Your task to perform on an android device: choose inbox layout in the gmail app Image 0: 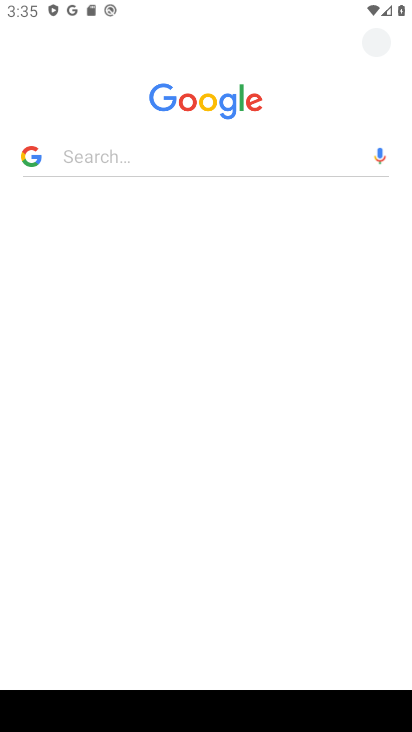
Step 0: press back button
Your task to perform on an android device: choose inbox layout in the gmail app Image 1: 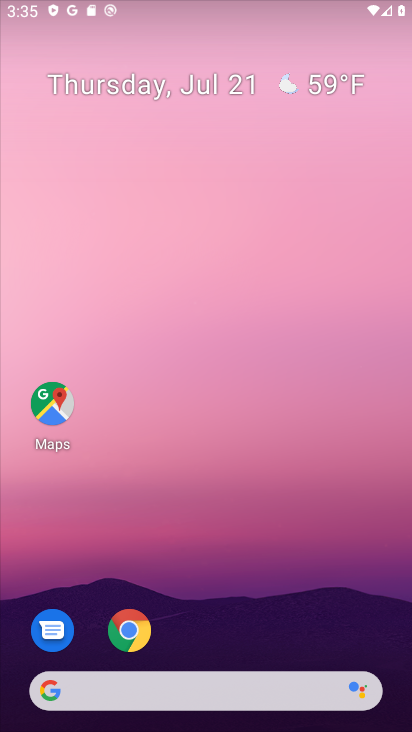
Step 1: drag from (203, 645) to (151, 348)
Your task to perform on an android device: choose inbox layout in the gmail app Image 2: 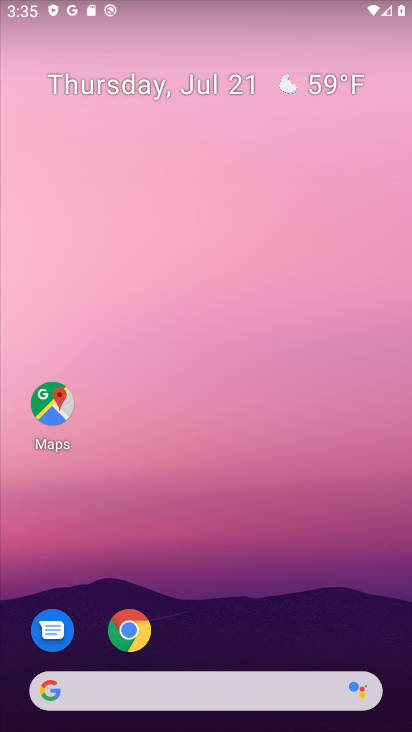
Step 2: drag from (219, 307) to (195, 65)
Your task to perform on an android device: choose inbox layout in the gmail app Image 3: 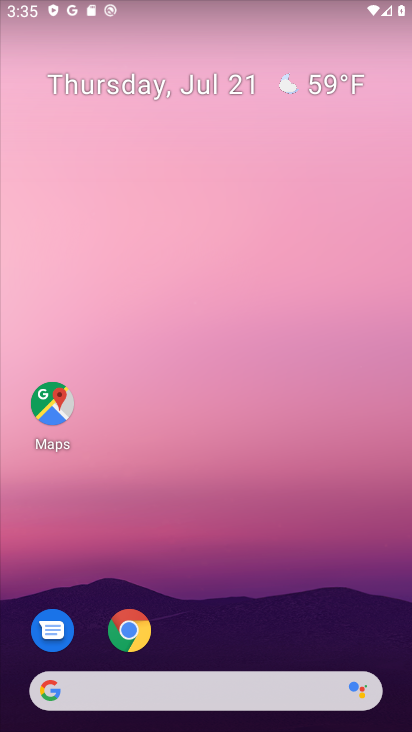
Step 3: drag from (272, 604) to (273, 230)
Your task to perform on an android device: choose inbox layout in the gmail app Image 4: 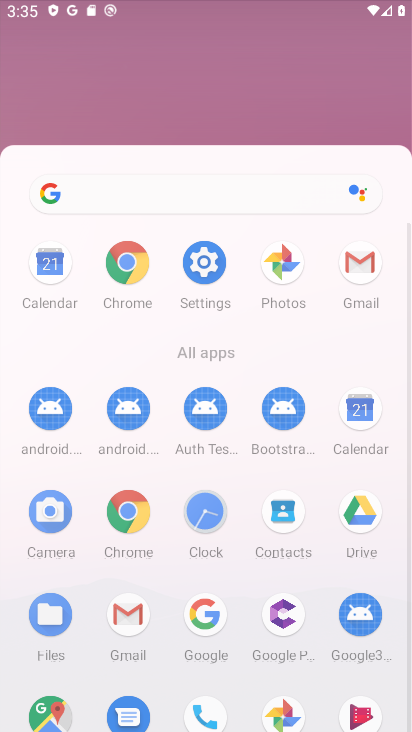
Step 4: drag from (263, 306) to (260, 105)
Your task to perform on an android device: choose inbox layout in the gmail app Image 5: 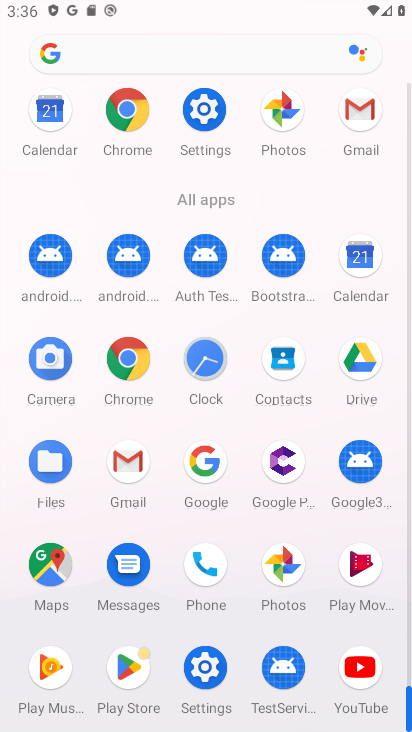
Step 5: click (120, 446)
Your task to perform on an android device: choose inbox layout in the gmail app Image 6: 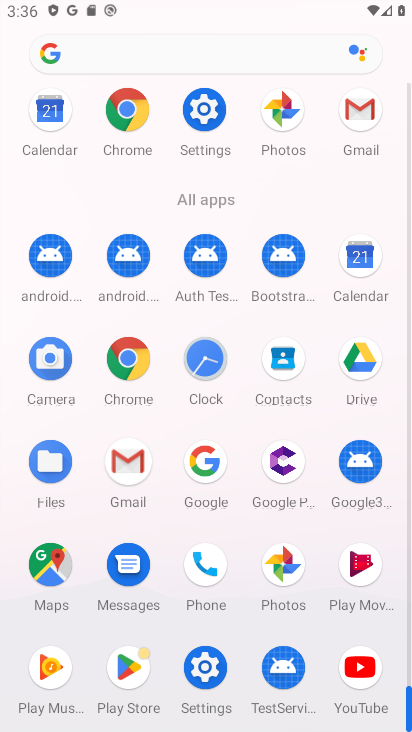
Step 6: click (122, 445)
Your task to perform on an android device: choose inbox layout in the gmail app Image 7: 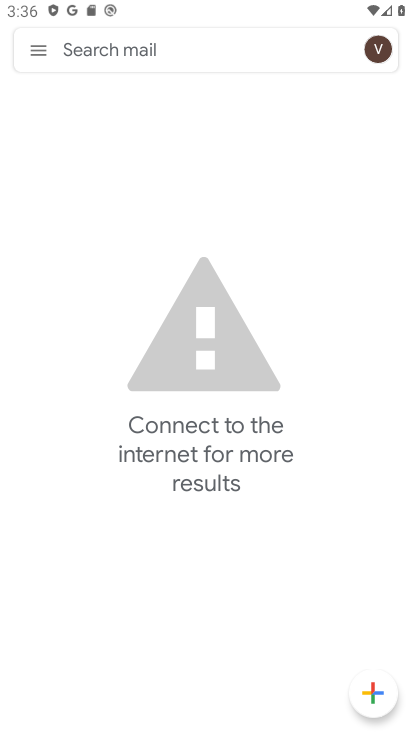
Step 7: click (38, 45)
Your task to perform on an android device: choose inbox layout in the gmail app Image 8: 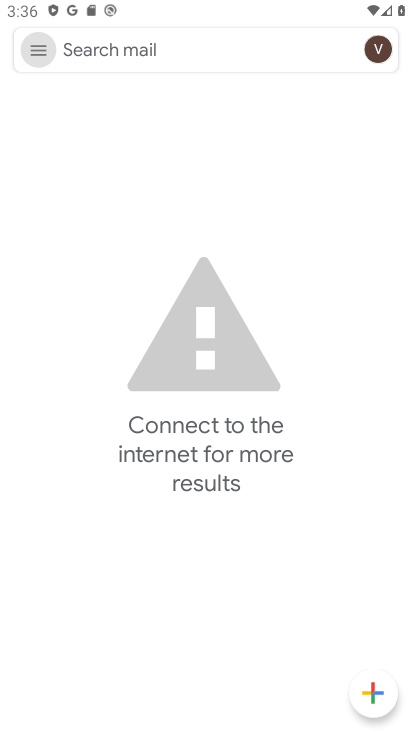
Step 8: drag from (37, 45) to (120, 622)
Your task to perform on an android device: choose inbox layout in the gmail app Image 9: 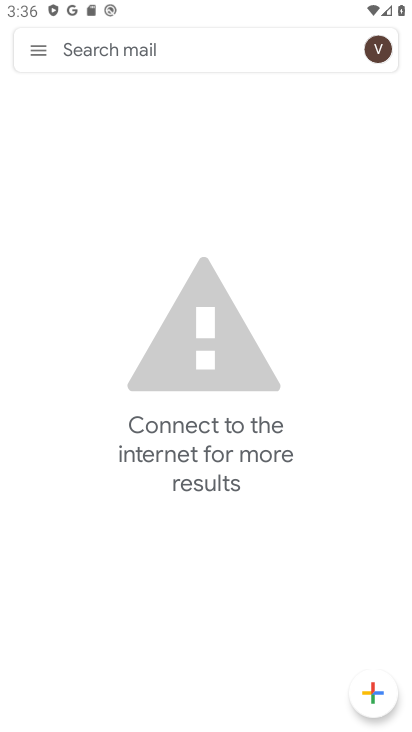
Step 9: click (40, 54)
Your task to perform on an android device: choose inbox layout in the gmail app Image 10: 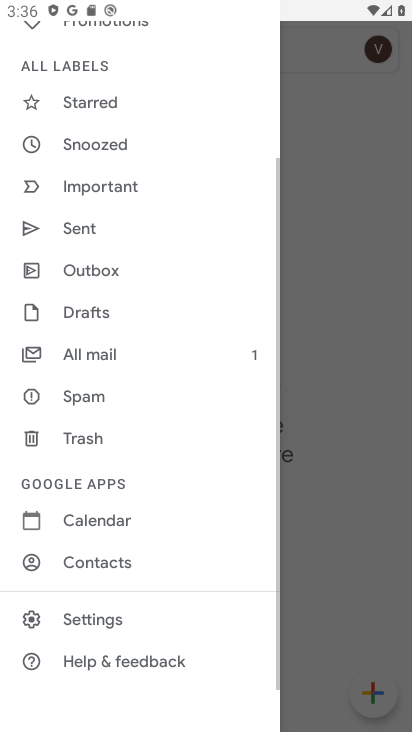
Step 10: click (69, 617)
Your task to perform on an android device: choose inbox layout in the gmail app Image 11: 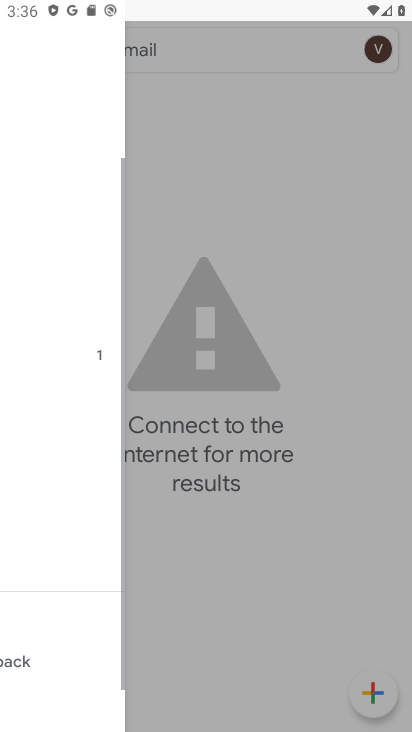
Step 11: click (69, 617)
Your task to perform on an android device: choose inbox layout in the gmail app Image 12: 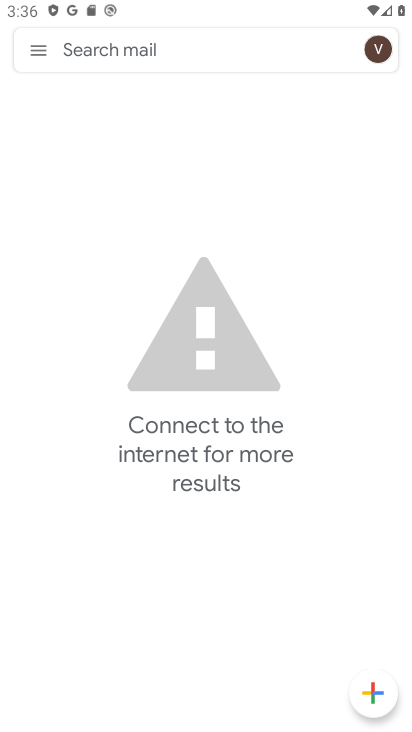
Step 12: click (73, 612)
Your task to perform on an android device: choose inbox layout in the gmail app Image 13: 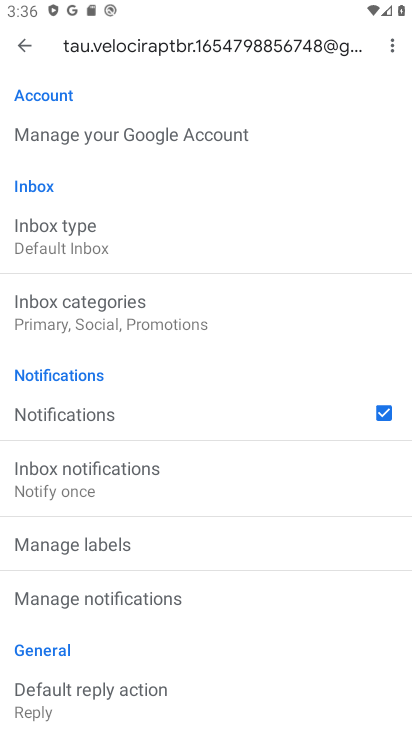
Step 13: press back button
Your task to perform on an android device: choose inbox layout in the gmail app Image 14: 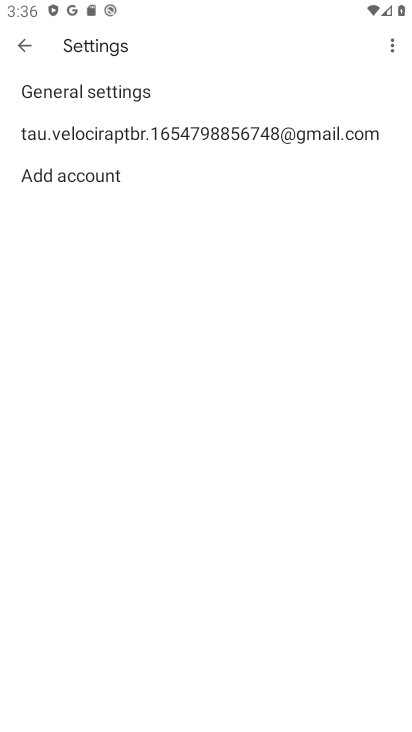
Step 14: click (18, 45)
Your task to perform on an android device: choose inbox layout in the gmail app Image 15: 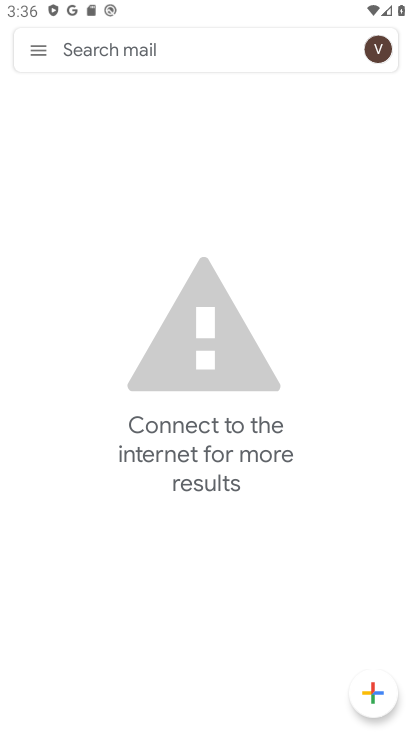
Step 15: click (32, 46)
Your task to perform on an android device: choose inbox layout in the gmail app Image 16: 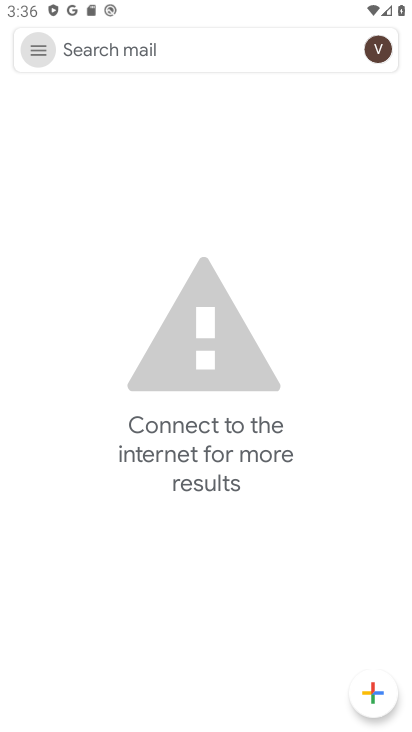
Step 16: click (33, 46)
Your task to perform on an android device: choose inbox layout in the gmail app Image 17: 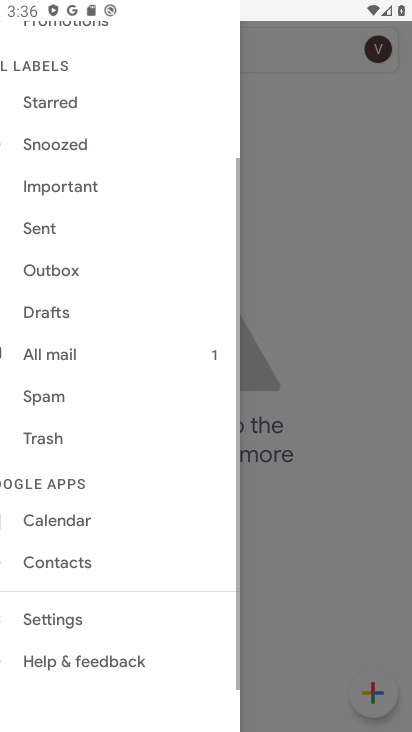
Step 17: click (33, 46)
Your task to perform on an android device: choose inbox layout in the gmail app Image 18: 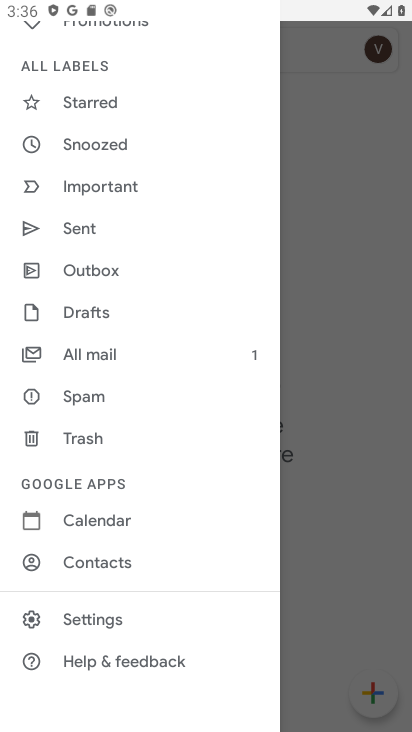
Step 18: click (98, 347)
Your task to perform on an android device: choose inbox layout in the gmail app Image 19: 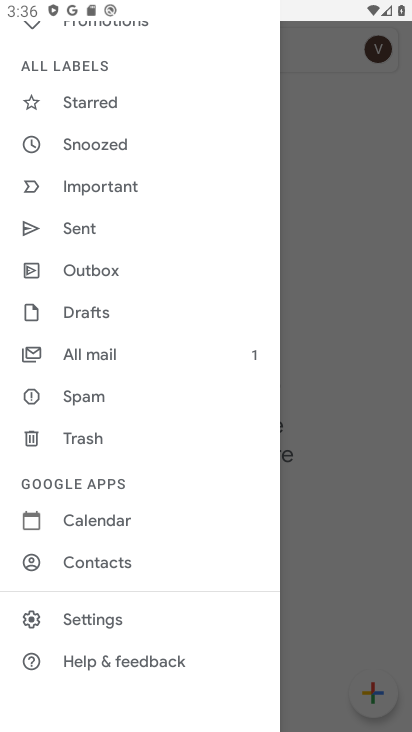
Step 19: click (97, 349)
Your task to perform on an android device: choose inbox layout in the gmail app Image 20: 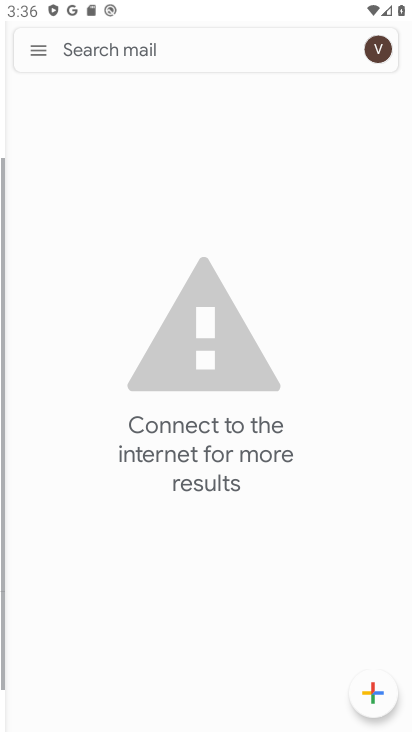
Step 20: click (98, 350)
Your task to perform on an android device: choose inbox layout in the gmail app Image 21: 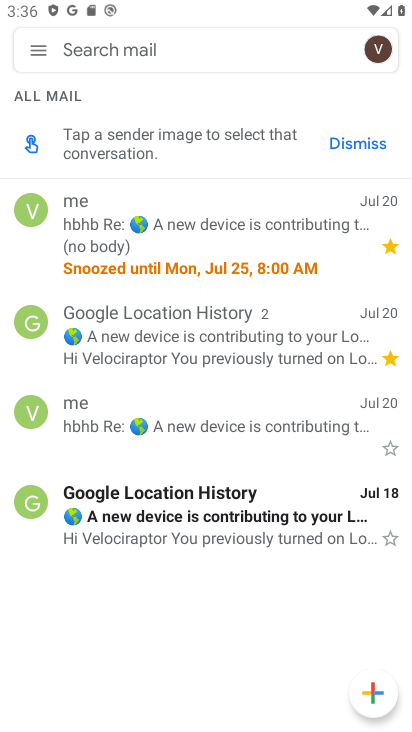
Step 21: click (37, 42)
Your task to perform on an android device: choose inbox layout in the gmail app Image 22: 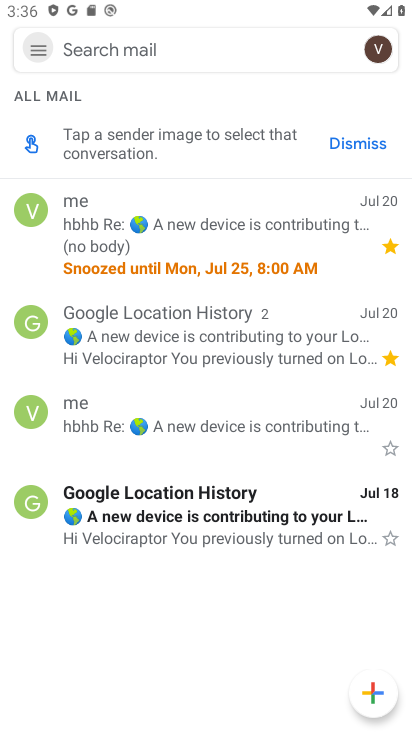
Step 22: click (37, 42)
Your task to perform on an android device: choose inbox layout in the gmail app Image 23: 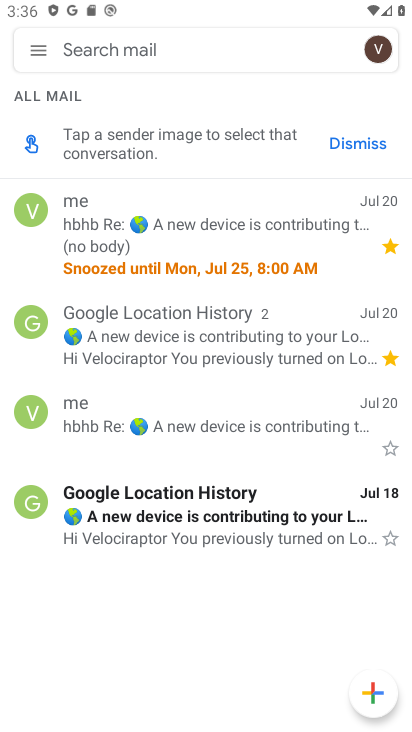
Step 23: click (43, 35)
Your task to perform on an android device: choose inbox layout in the gmail app Image 24: 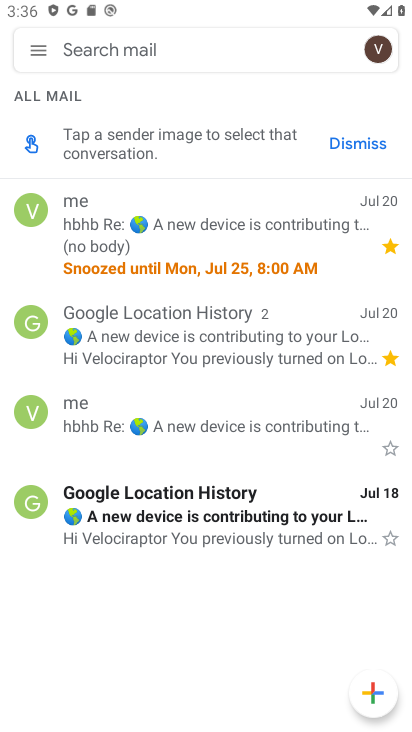
Step 24: click (28, 61)
Your task to perform on an android device: choose inbox layout in the gmail app Image 25: 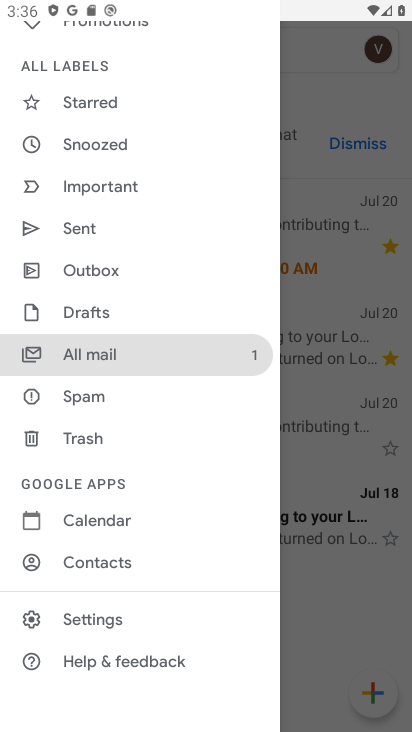
Step 25: click (75, 614)
Your task to perform on an android device: choose inbox layout in the gmail app Image 26: 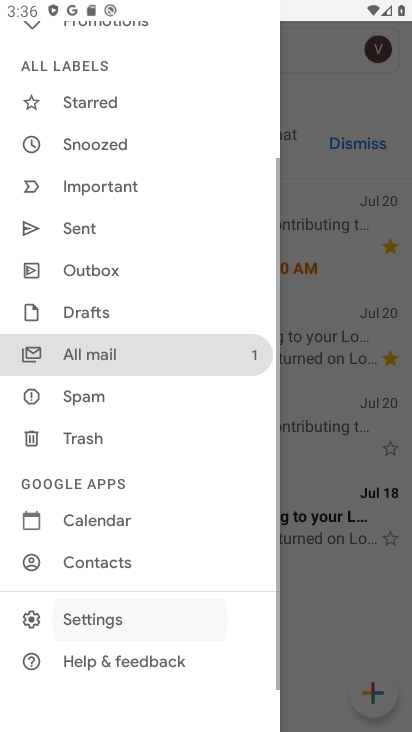
Step 26: click (77, 614)
Your task to perform on an android device: choose inbox layout in the gmail app Image 27: 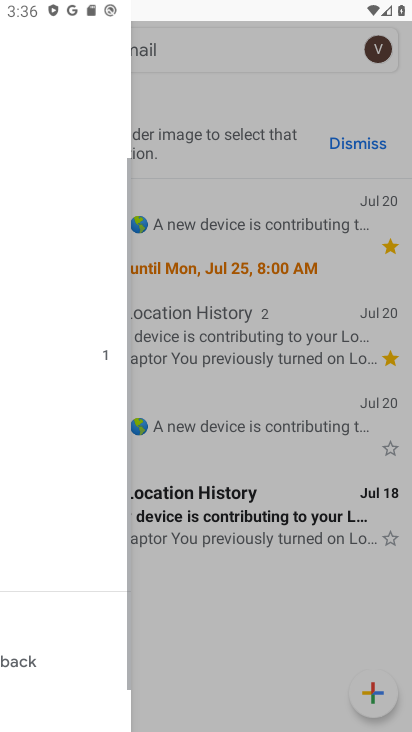
Step 27: click (81, 614)
Your task to perform on an android device: choose inbox layout in the gmail app Image 28: 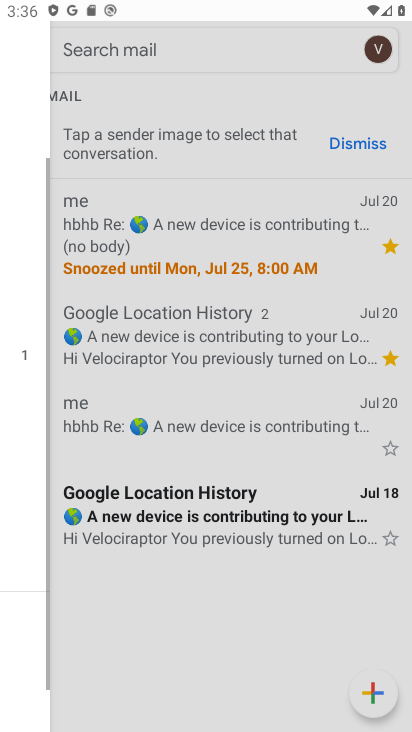
Step 28: click (95, 607)
Your task to perform on an android device: choose inbox layout in the gmail app Image 29: 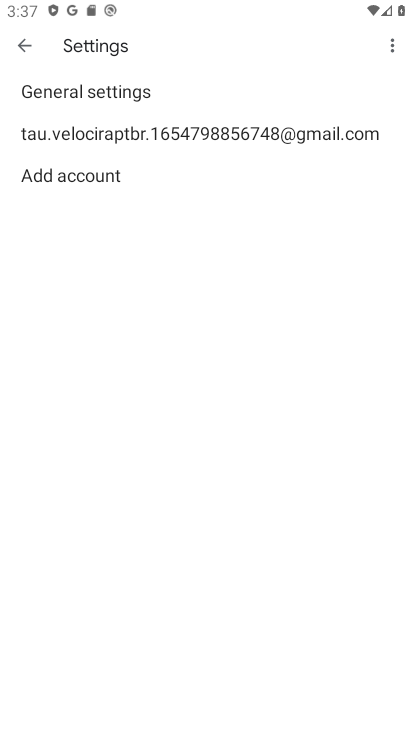
Step 29: click (131, 127)
Your task to perform on an android device: choose inbox layout in the gmail app Image 30: 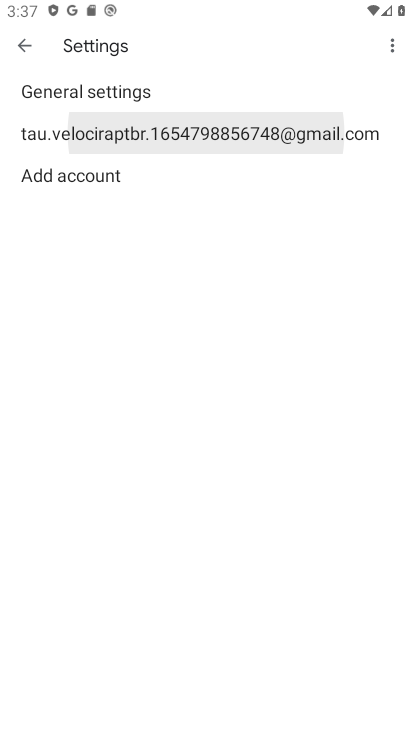
Step 30: click (132, 128)
Your task to perform on an android device: choose inbox layout in the gmail app Image 31: 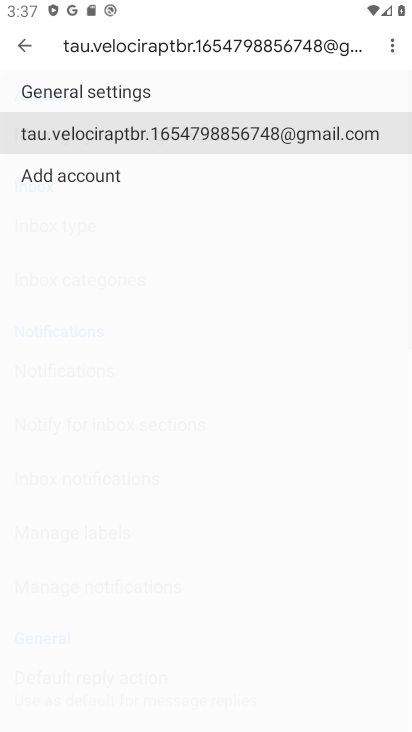
Step 31: click (133, 128)
Your task to perform on an android device: choose inbox layout in the gmail app Image 32: 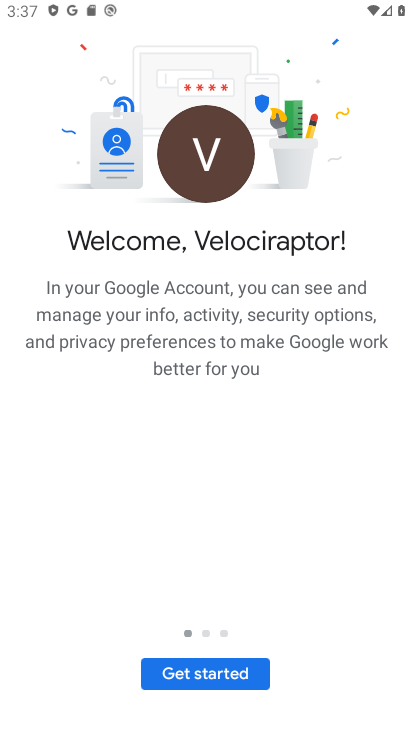
Step 32: press back button
Your task to perform on an android device: choose inbox layout in the gmail app Image 33: 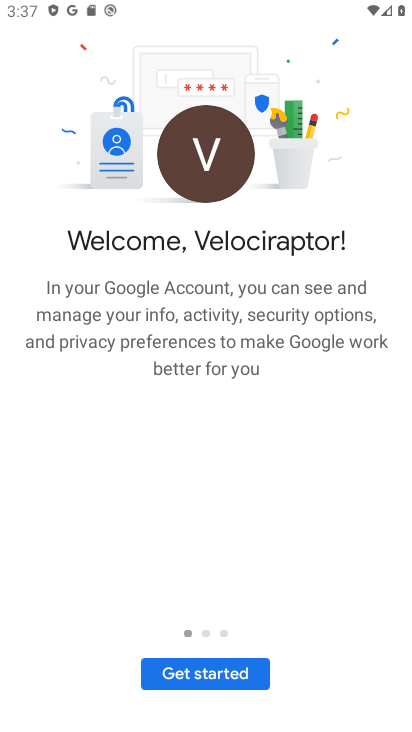
Step 33: press back button
Your task to perform on an android device: choose inbox layout in the gmail app Image 34: 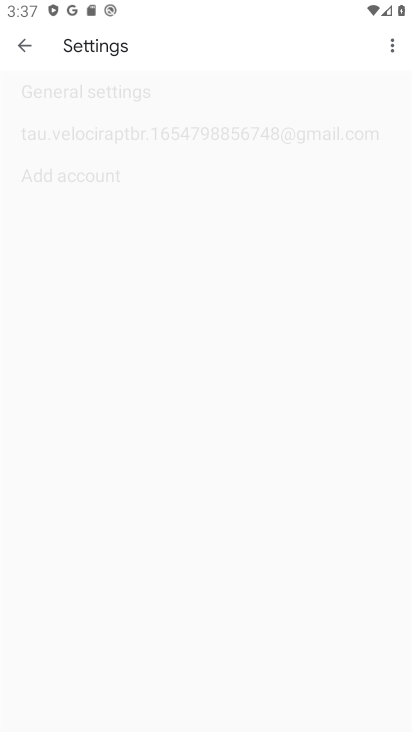
Step 34: press back button
Your task to perform on an android device: choose inbox layout in the gmail app Image 35: 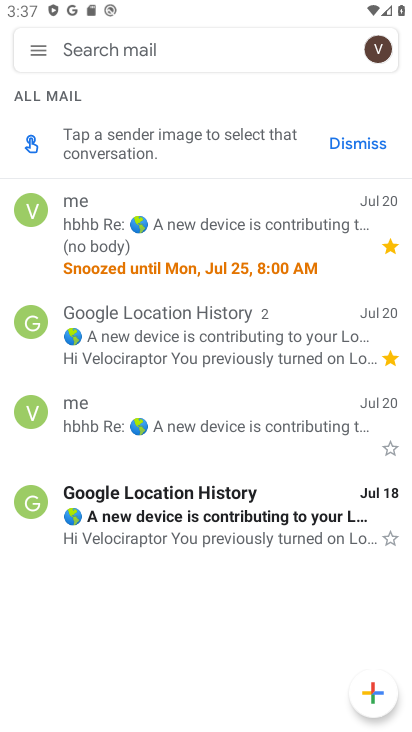
Step 35: click (33, 47)
Your task to perform on an android device: choose inbox layout in the gmail app Image 36: 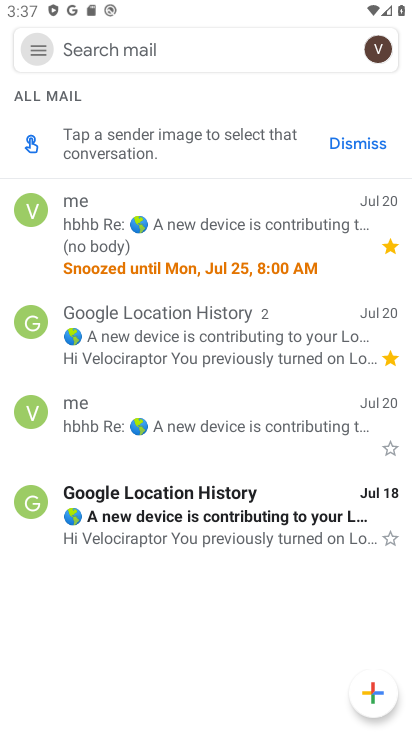
Step 36: click (35, 46)
Your task to perform on an android device: choose inbox layout in the gmail app Image 37: 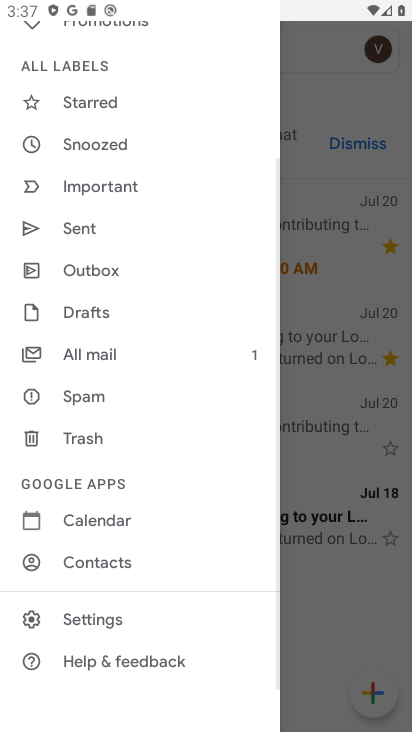
Step 37: click (96, 614)
Your task to perform on an android device: choose inbox layout in the gmail app Image 38: 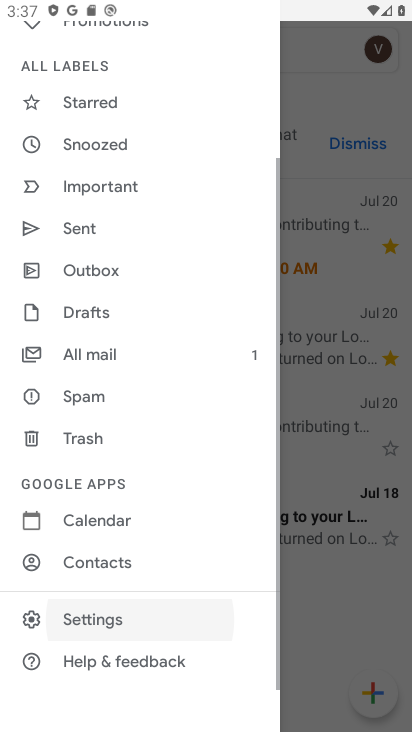
Step 38: click (96, 614)
Your task to perform on an android device: choose inbox layout in the gmail app Image 39: 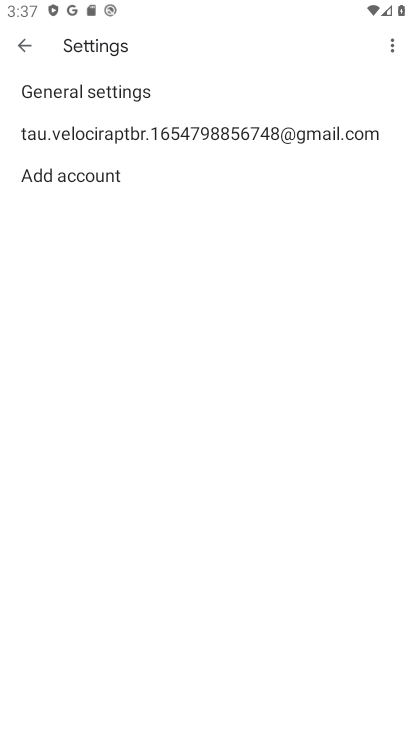
Step 39: click (61, 140)
Your task to perform on an android device: choose inbox layout in the gmail app Image 40: 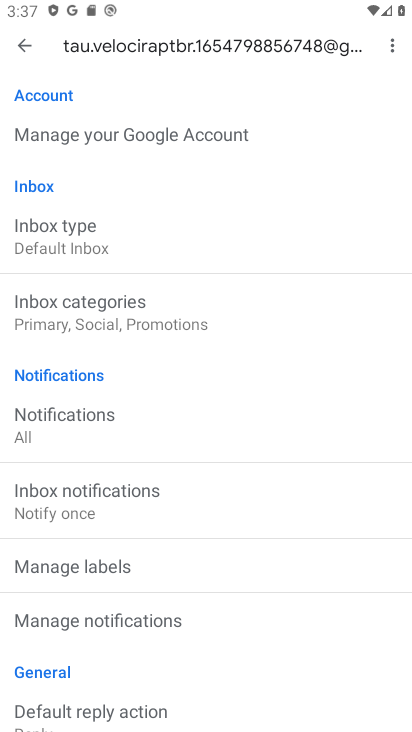
Step 40: task complete